Your task to perform on an android device: turn on sleep mode Image 0: 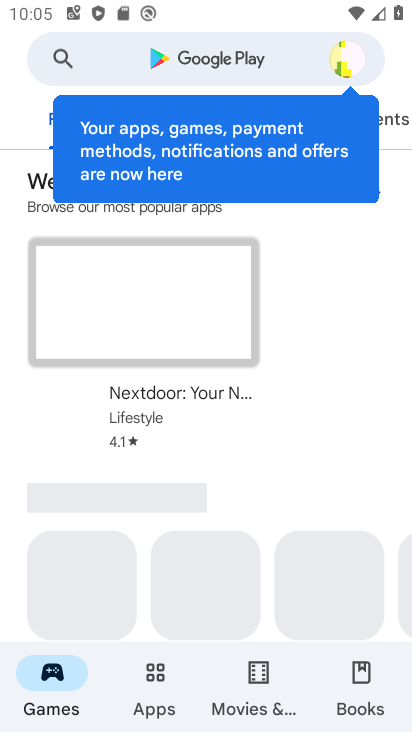
Step 0: press back button
Your task to perform on an android device: turn on sleep mode Image 1: 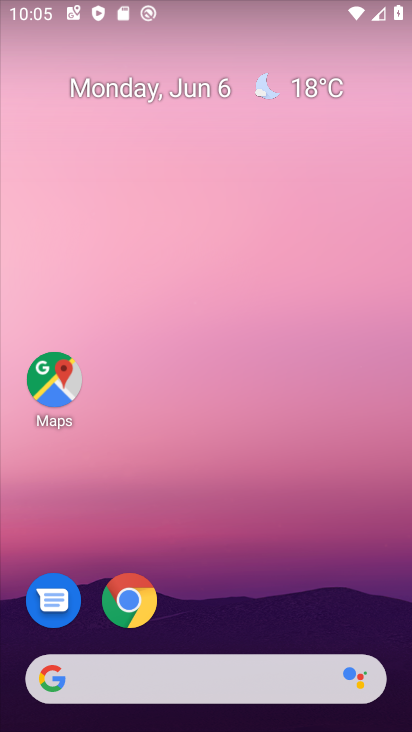
Step 1: drag from (279, 596) to (253, 13)
Your task to perform on an android device: turn on sleep mode Image 2: 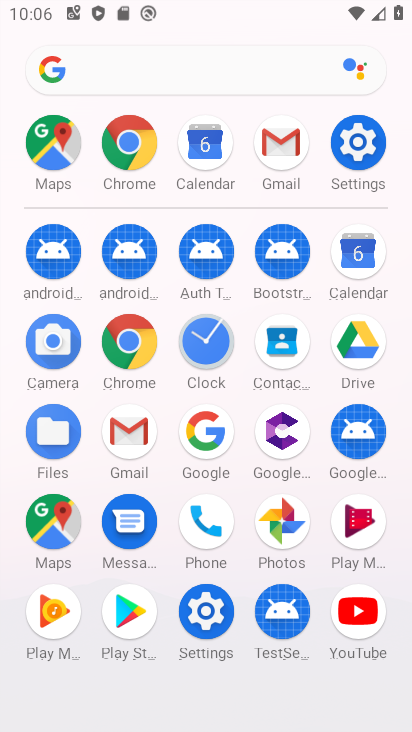
Step 2: click (202, 607)
Your task to perform on an android device: turn on sleep mode Image 3: 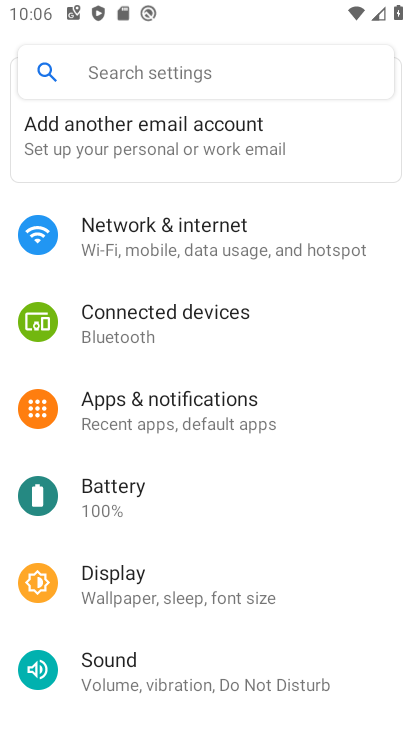
Step 3: click (233, 242)
Your task to perform on an android device: turn on sleep mode Image 4: 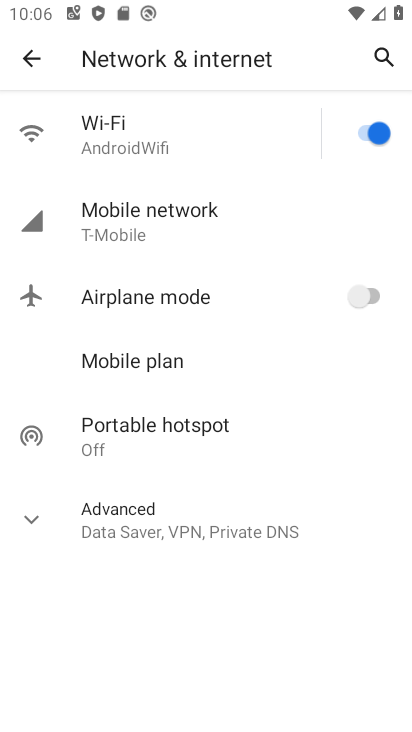
Step 4: click (28, 518)
Your task to perform on an android device: turn on sleep mode Image 5: 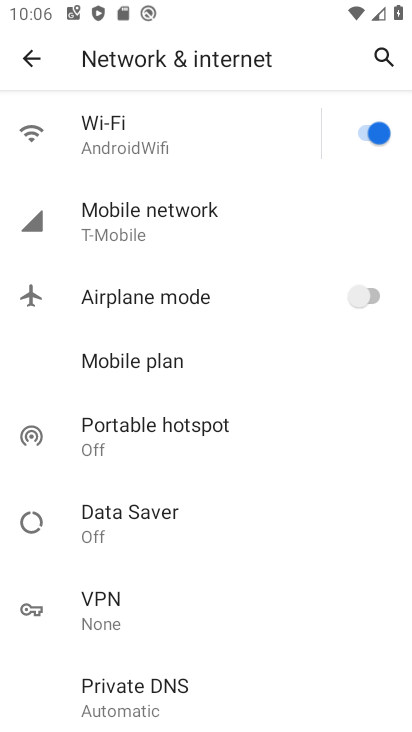
Step 5: task complete